Your task to perform on an android device: turn on airplane mode Image 0: 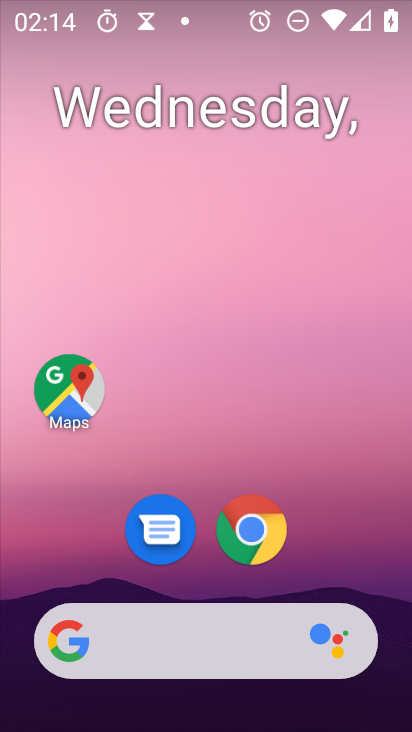
Step 0: drag from (251, 588) to (236, 0)
Your task to perform on an android device: turn on airplane mode Image 1: 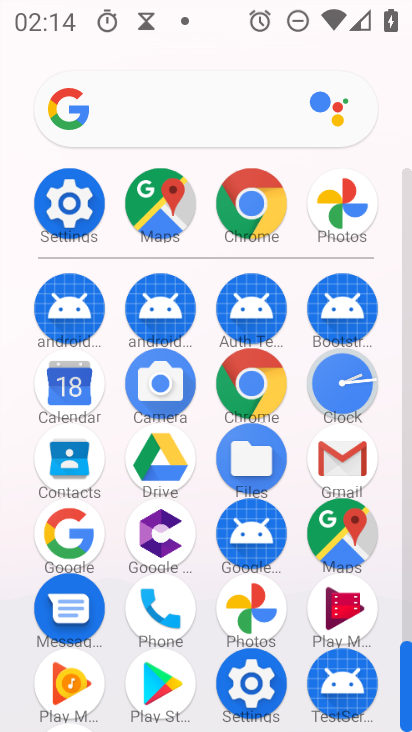
Step 1: click (75, 201)
Your task to perform on an android device: turn on airplane mode Image 2: 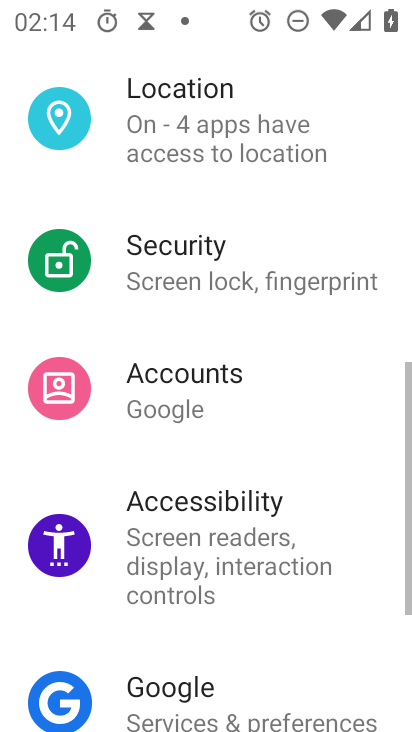
Step 2: drag from (279, 198) to (300, 664)
Your task to perform on an android device: turn on airplane mode Image 3: 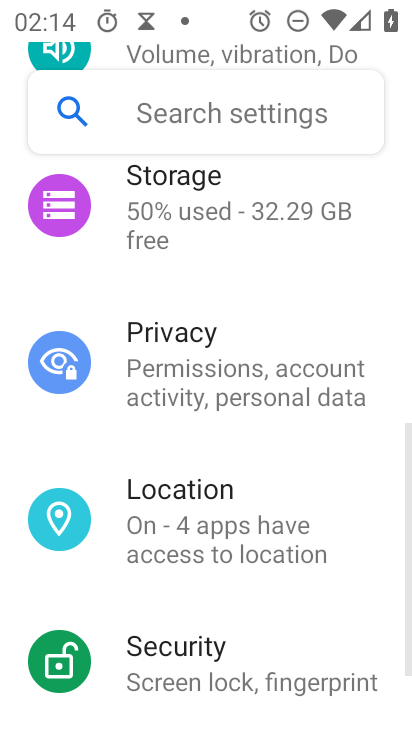
Step 3: drag from (275, 250) to (316, 713)
Your task to perform on an android device: turn on airplane mode Image 4: 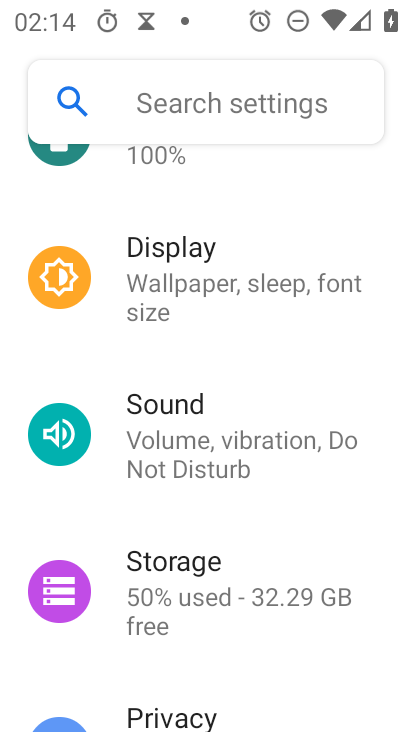
Step 4: drag from (277, 230) to (287, 729)
Your task to perform on an android device: turn on airplane mode Image 5: 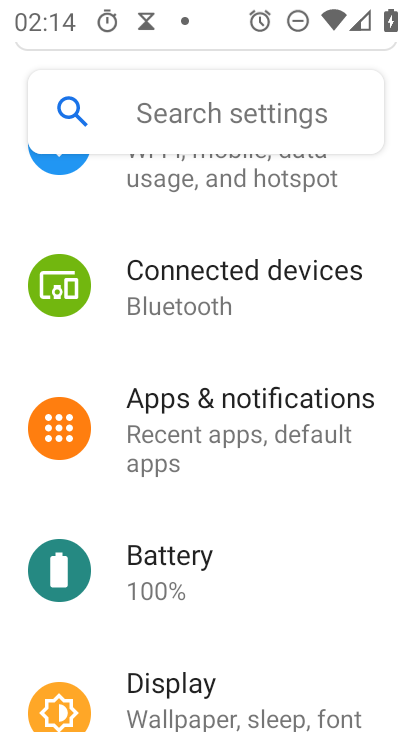
Step 5: drag from (280, 267) to (307, 712)
Your task to perform on an android device: turn on airplane mode Image 6: 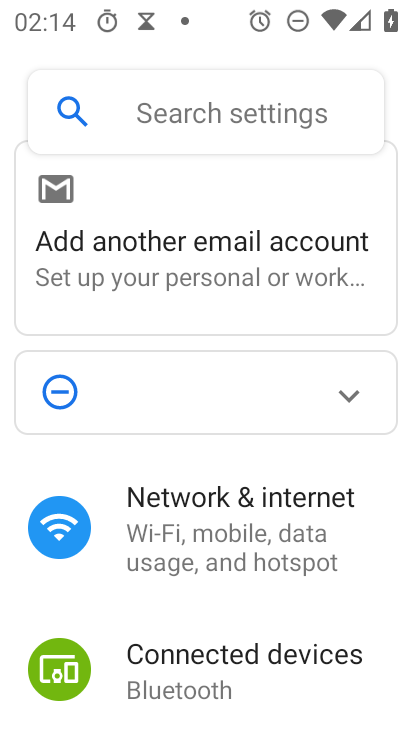
Step 6: click (301, 533)
Your task to perform on an android device: turn on airplane mode Image 7: 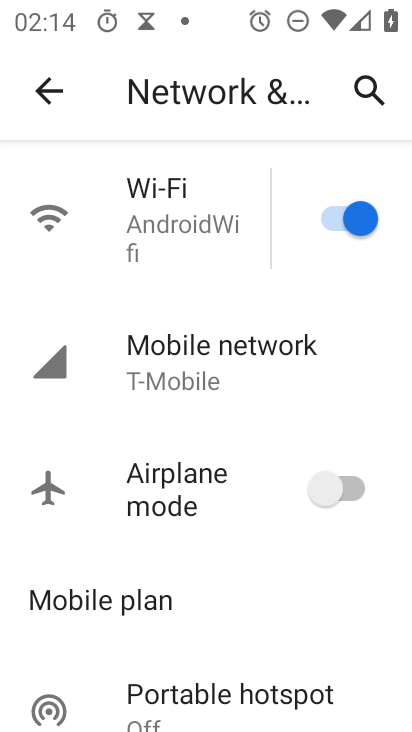
Step 7: click (329, 487)
Your task to perform on an android device: turn on airplane mode Image 8: 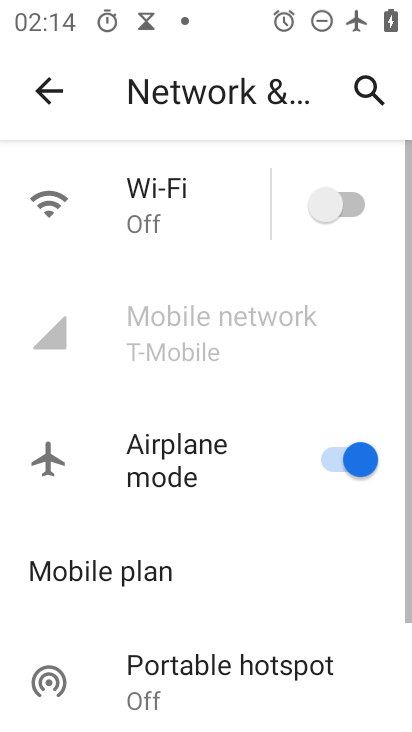
Step 8: task complete